Your task to perform on an android device: see creations saved in the google photos Image 0: 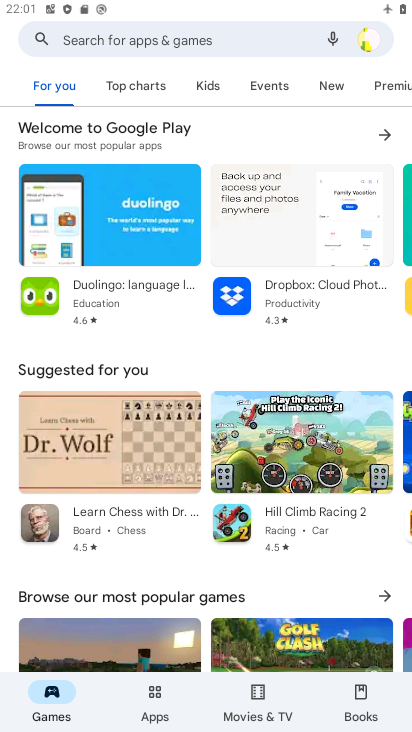
Step 0: press back button
Your task to perform on an android device: see creations saved in the google photos Image 1: 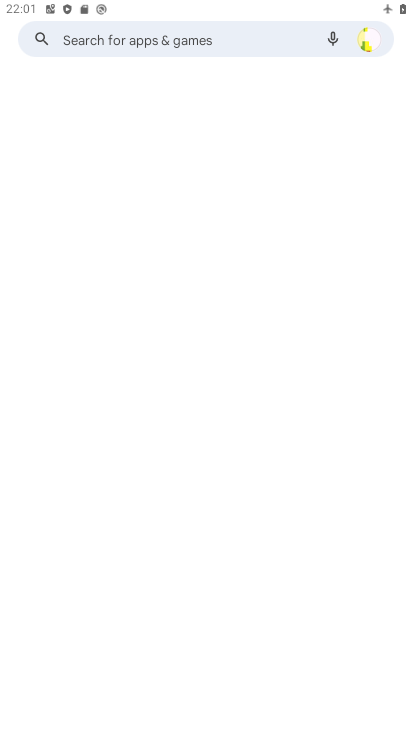
Step 1: press back button
Your task to perform on an android device: see creations saved in the google photos Image 2: 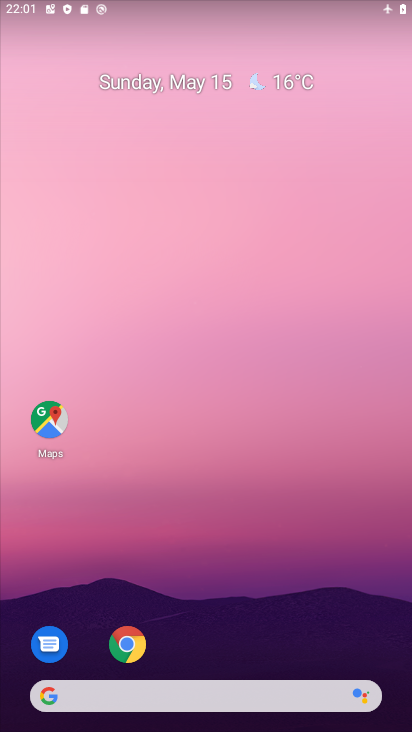
Step 2: drag from (222, 634) to (327, 41)
Your task to perform on an android device: see creations saved in the google photos Image 3: 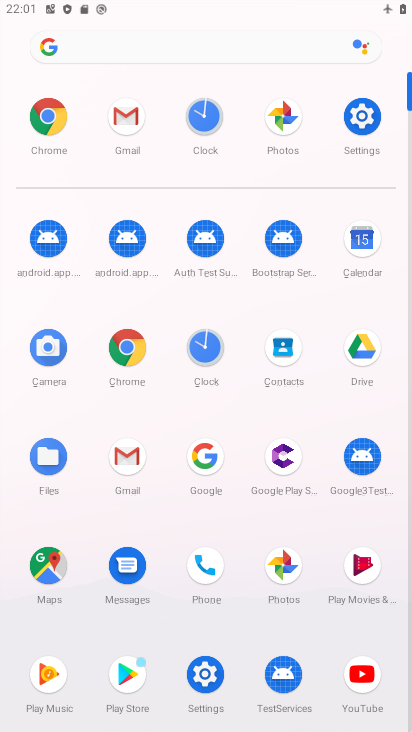
Step 3: click (293, 572)
Your task to perform on an android device: see creations saved in the google photos Image 4: 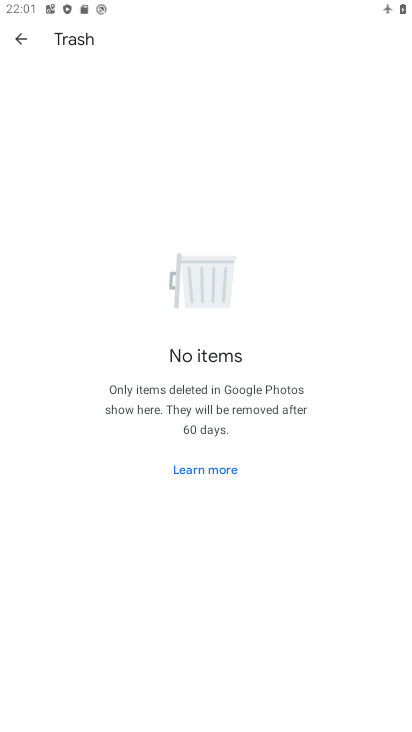
Step 4: click (19, 43)
Your task to perform on an android device: see creations saved in the google photos Image 5: 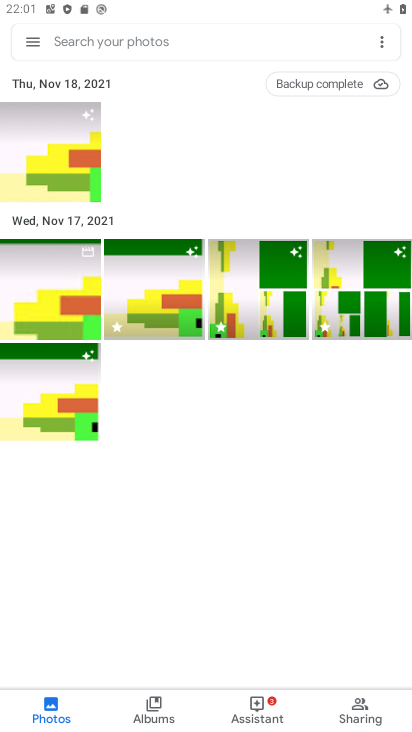
Step 5: click (30, 38)
Your task to perform on an android device: see creations saved in the google photos Image 6: 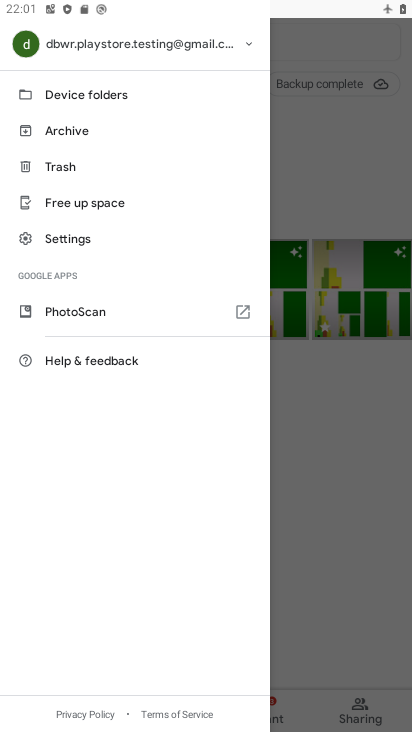
Step 6: click (72, 131)
Your task to perform on an android device: see creations saved in the google photos Image 7: 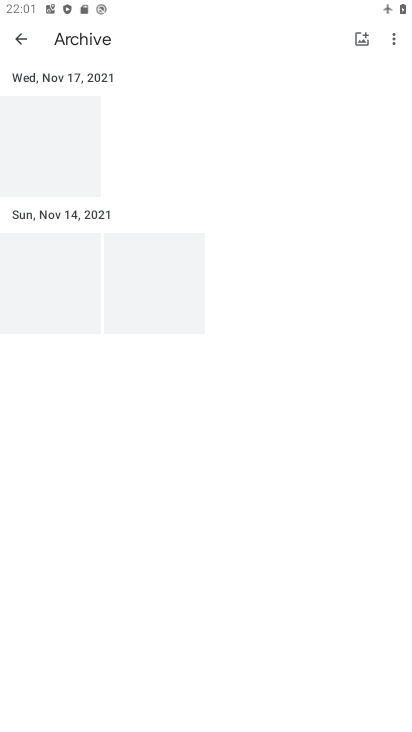
Step 7: task complete